Your task to perform on an android device: Open my contact list Image 0: 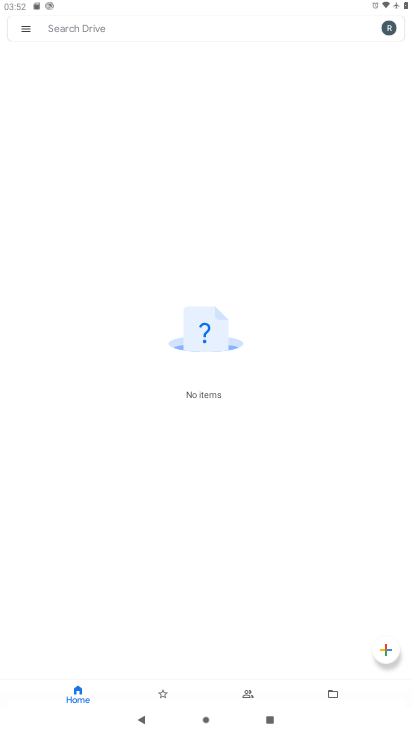
Step 0: press home button
Your task to perform on an android device: Open my contact list Image 1: 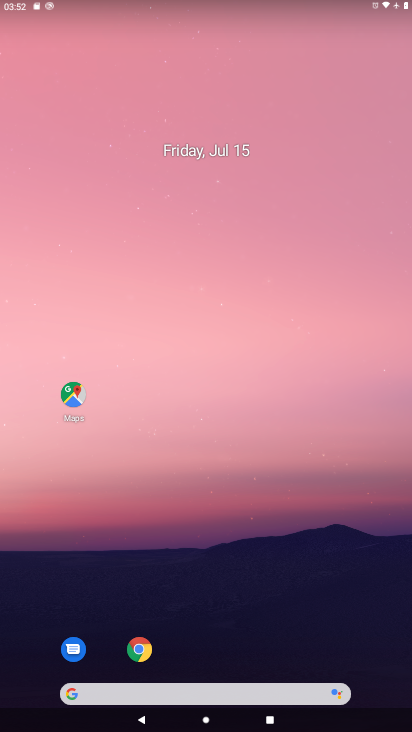
Step 1: drag from (381, 649) to (354, 176)
Your task to perform on an android device: Open my contact list Image 2: 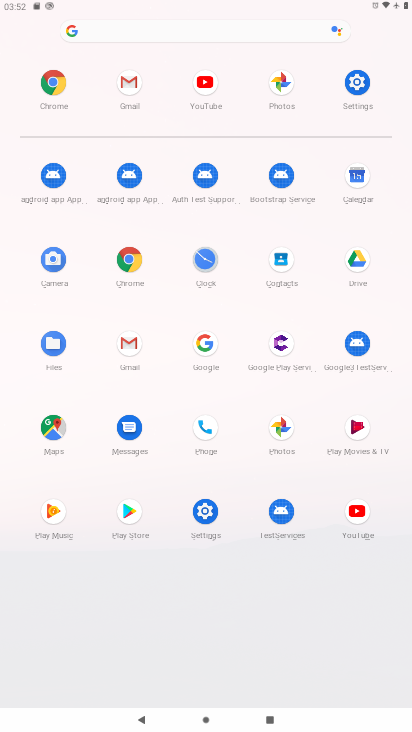
Step 2: click (278, 260)
Your task to perform on an android device: Open my contact list Image 3: 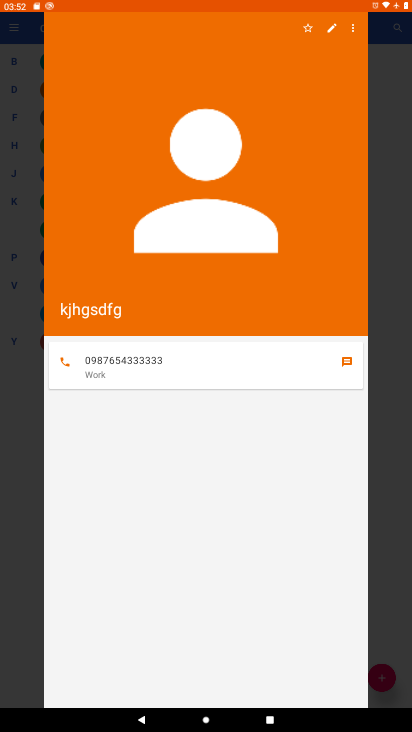
Step 3: task complete